Your task to perform on an android device: Open internet settings Image 0: 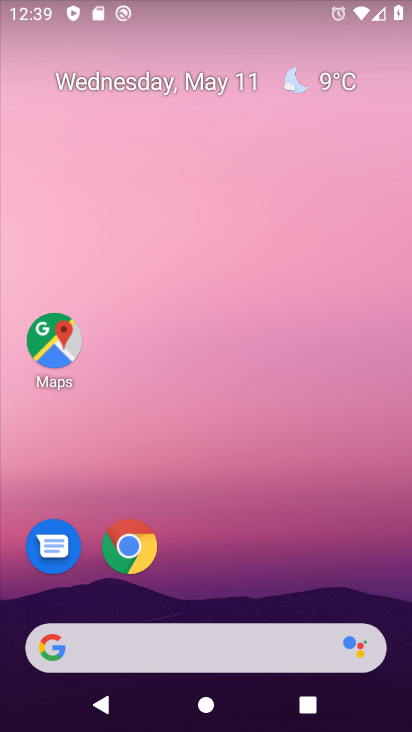
Step 0: drag from (199, 579) to (310, 139)
Your task to perform on an android device: Open internet settings Image 1: 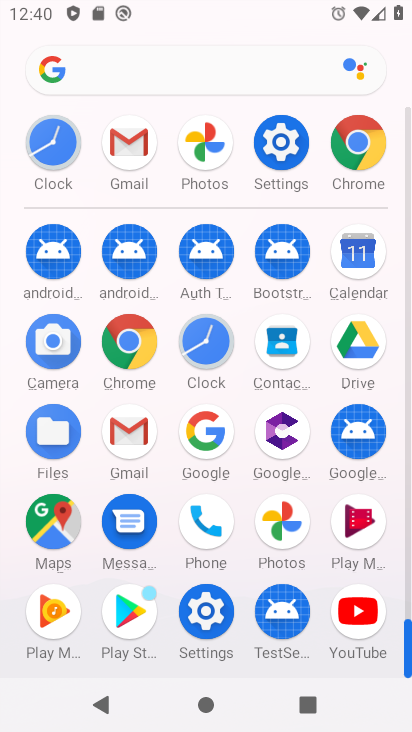
Step 1: click (286, 145)
Your task to perform on an android device: Open internet settings Image 2: 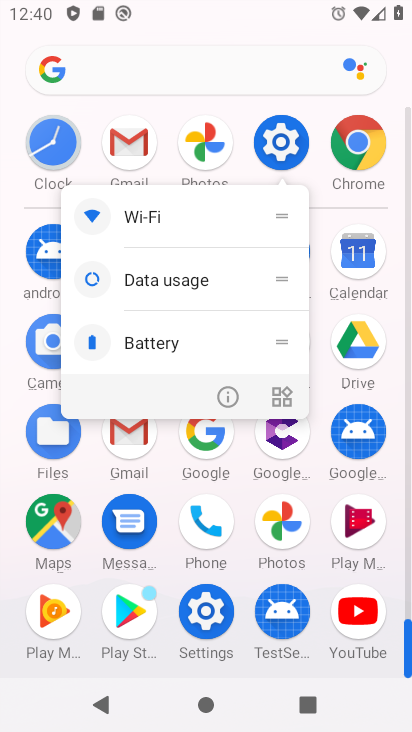
Step 2: click (225, 393)
Your task to perform on an android device: Open internet settings Image 3: 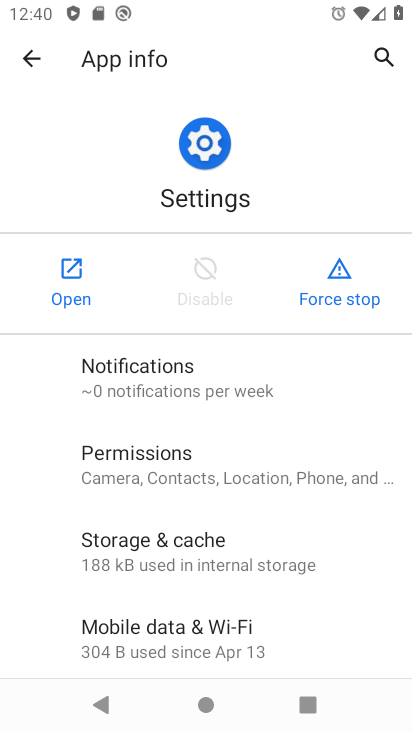
Step 3: click (80, 273)
Your task to perform on an android device: Open internet settings Image 4: 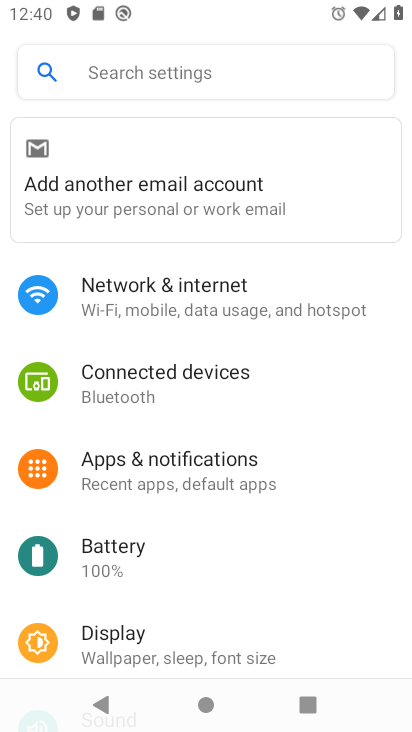
Step 4: click (185, 308)
Your task to perform on an android device: Open internet settings Image 5: 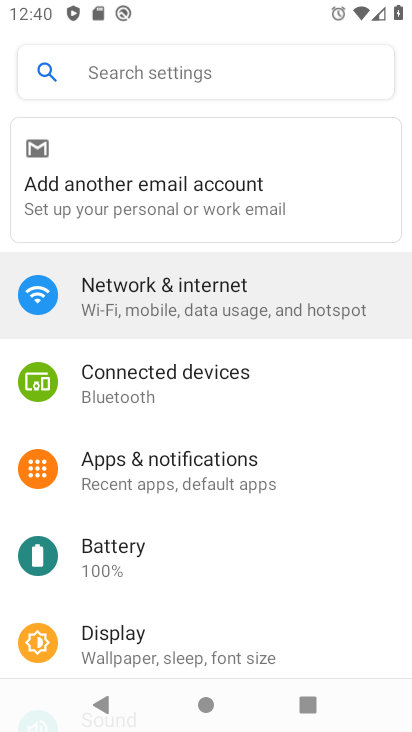
Step 5: click (185, 308)
Your task to perform on an android device: Open internet settings Image 6: 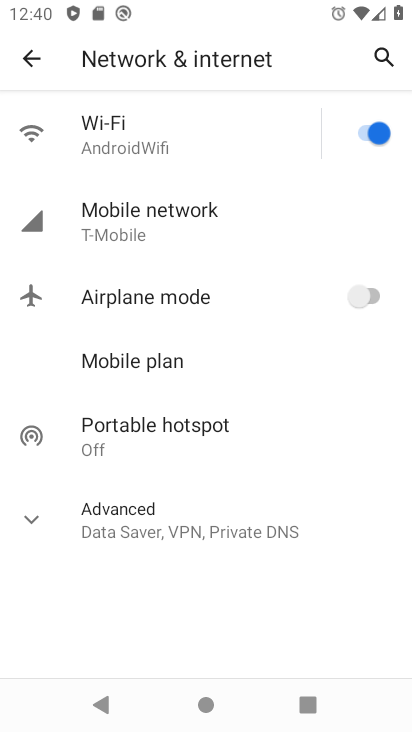
Step 6: task complete